Your task to perform on an android device: Open network settings Image 0: 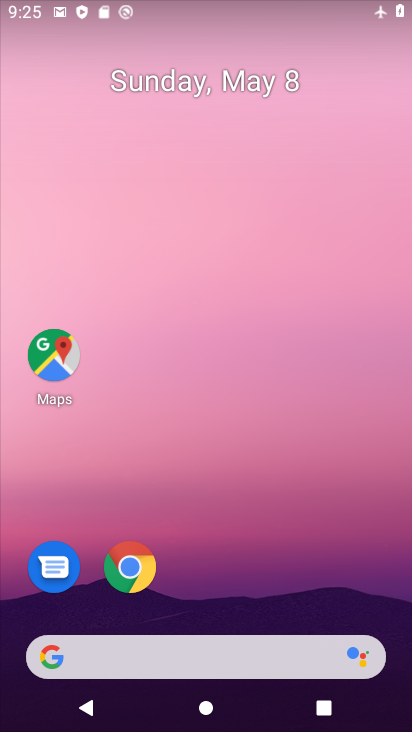
Step 0: drag from (186, 730) to (188, 231)
Your task to perform on an android device: Open network settings Image 1: 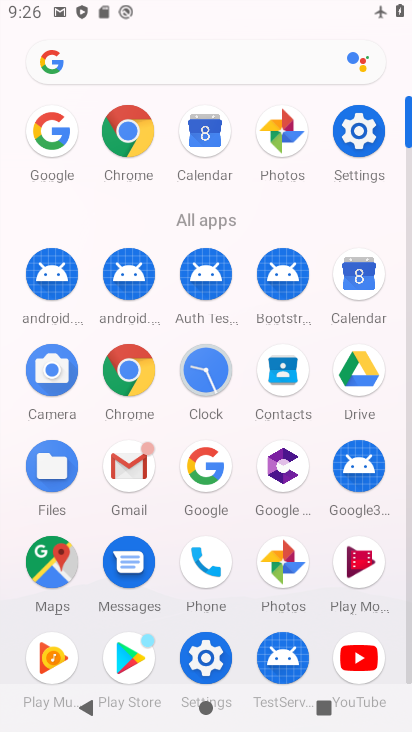
Step 1: click (361, 127)
Your task to perform on an android device: Open network settings Image 2: 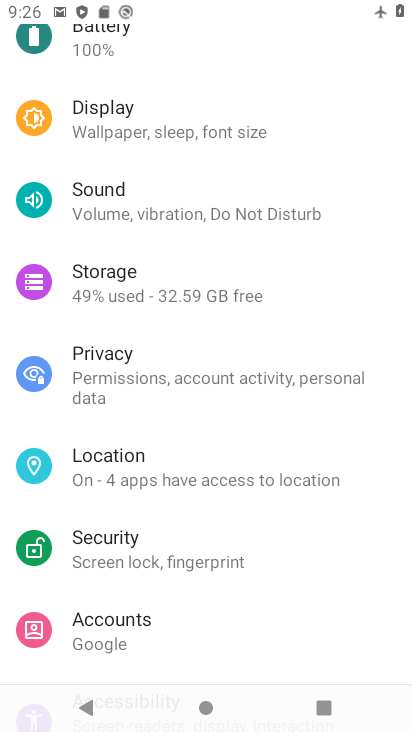
Step 2: drag from (326, 122) to (320, 566)
Your task to perform on an android device: Open network settings Image 3: 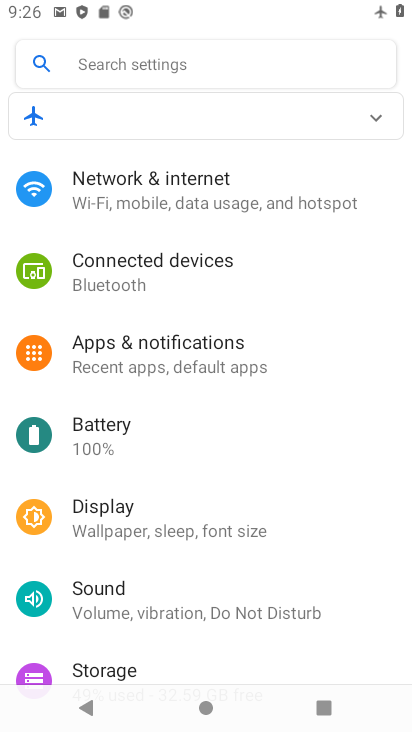
Step 3: click (124, 199)
Your task to perform on an android device: Open network settings Image 4: 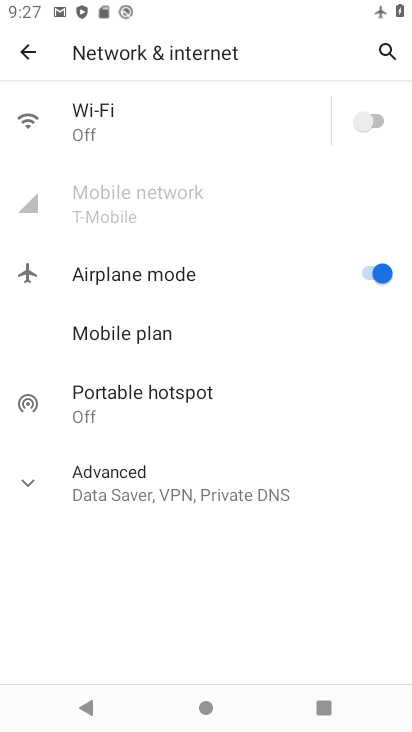
Step 4: task complete